Your task to perform on an android device: toggle notification dots Image 0: 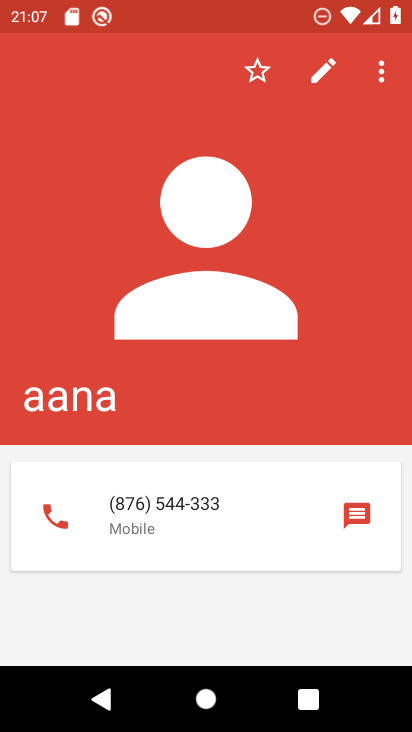
Step 0: press home button
Your task to perform on an android device: toggle notification dots Image 1: 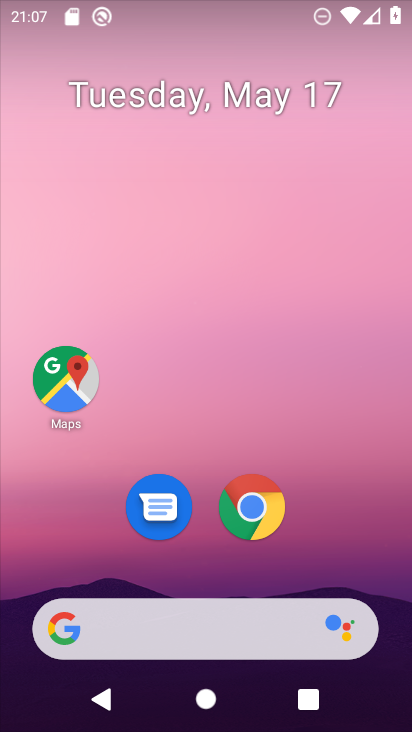
Step 1: drag from (335, 487) to (357, 13)
Your task to perform on an android device: toggle notification dots Image 2: 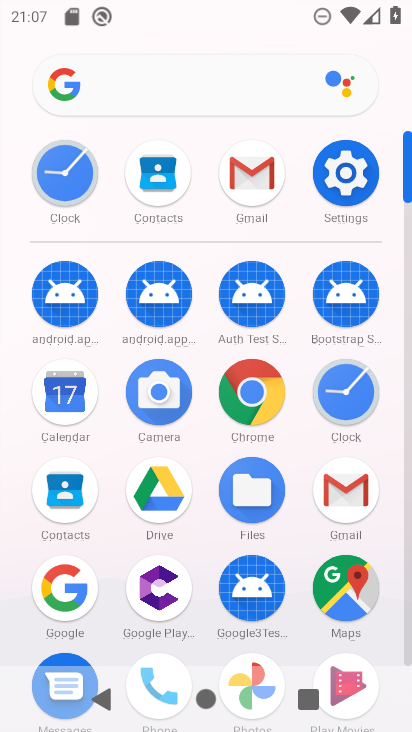
Step 2: click (348, 179)
Your task to perform on an android device: toggle notification dots Image 3: 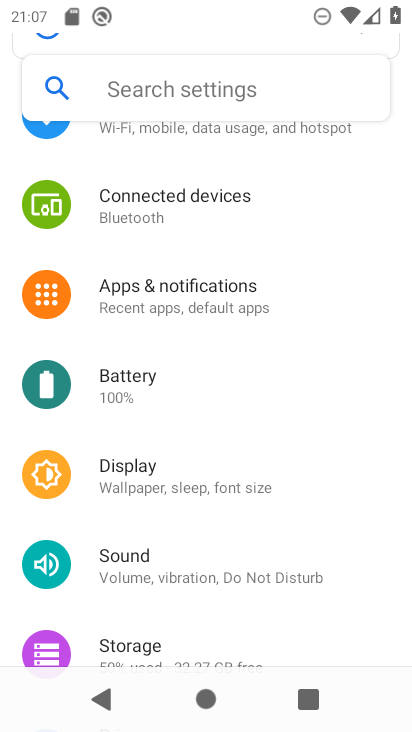
Step 3: click (184, 289)
Your task to perform on an android device: toggle notification dots Image 4: 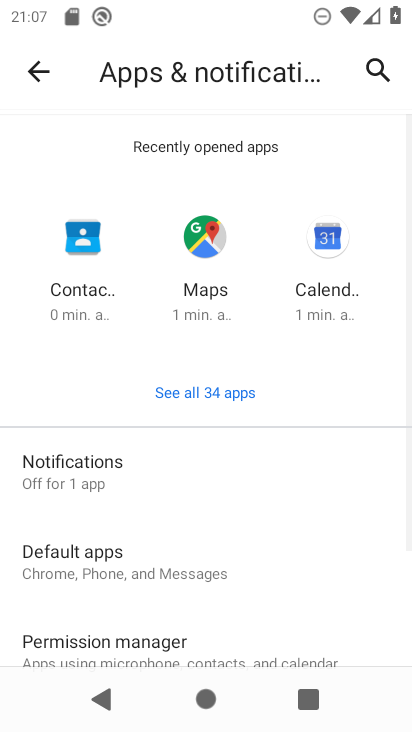
Step 4: click (75, 457)
Your task to perform on an android device: toggle notification dots Image 5: 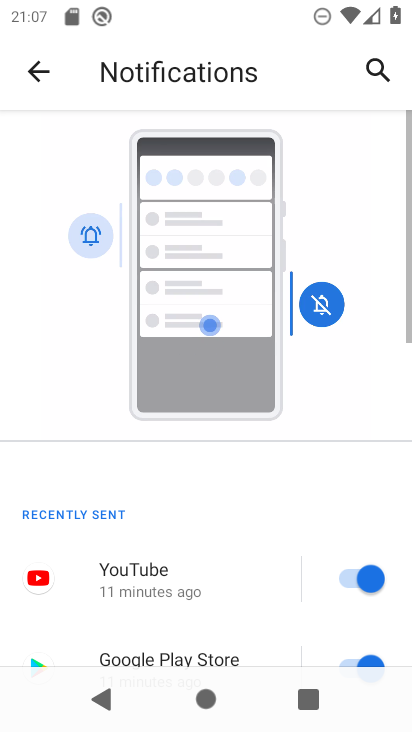
Step 5: drag from (242, 572) to (222, 47)
Your task to perform on an android device: toggle notification dots Image 6: 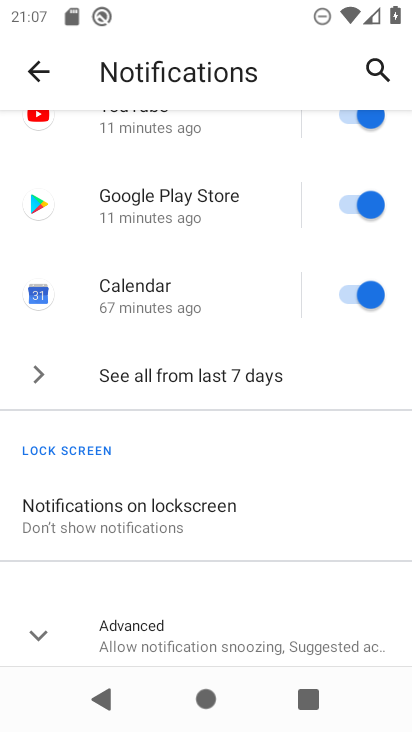
Step 6: click (38, 644)
Your task to perform on an android device: toggle notification dots Image 7: 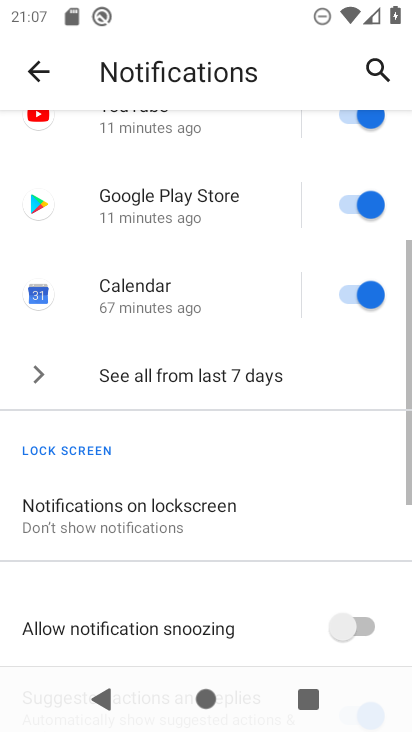
Step 7: drag from (210, 630) to (222, 169)
Your task to perform on an android device: toggle notification dots Image 8: 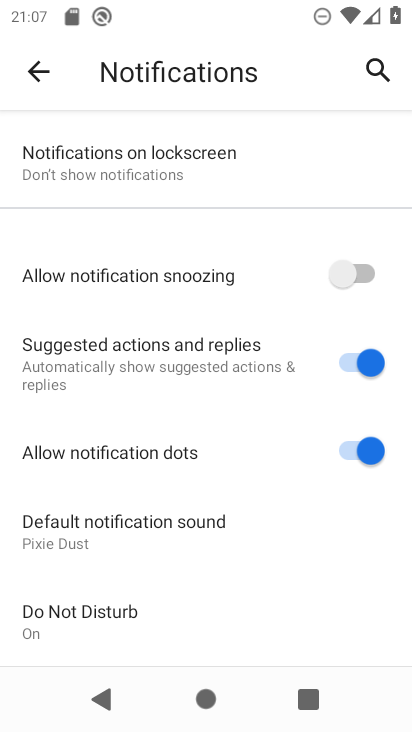
Step 8: click (359, 453)
Your task to perform on an android device: toggle notification dots Image 9: 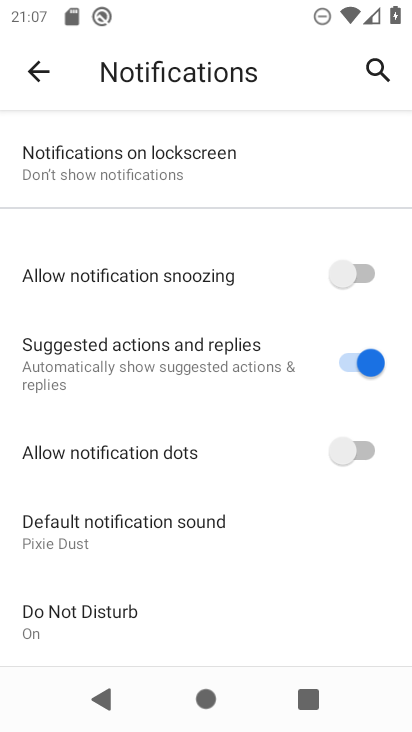
Step 9: task complete